Your task to perform on an android device: turn notification dots on Image 0: 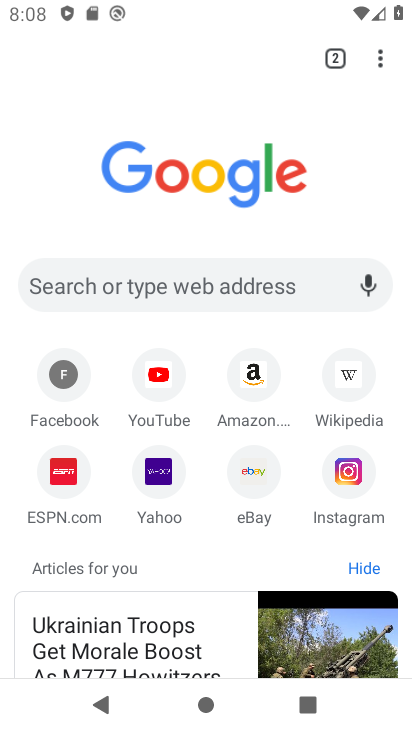
Step 0: click (393, 56)
Your task to perform on an android device: turn notification dots on Image 1: 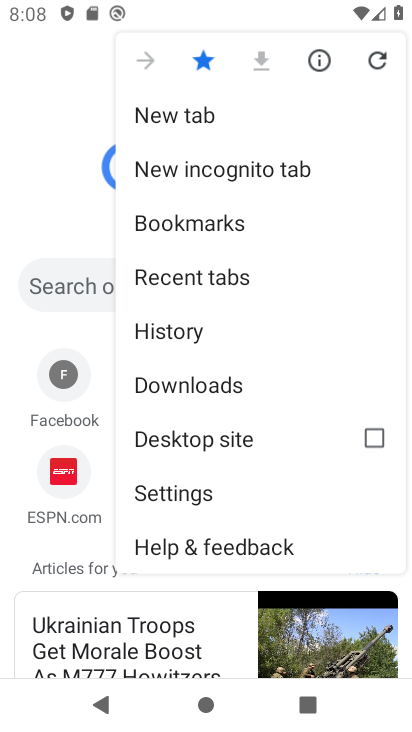
Step 1: click (191, 489)
Your task to perform on an android device: turn notification dots on Image 2: 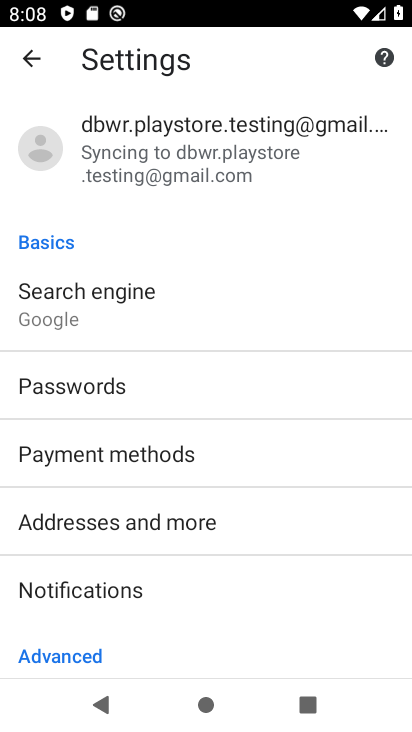
Step 2: task complete